Your task to perform on an android device: Add "jbl flip 4" to the cart on target.com Image 0: 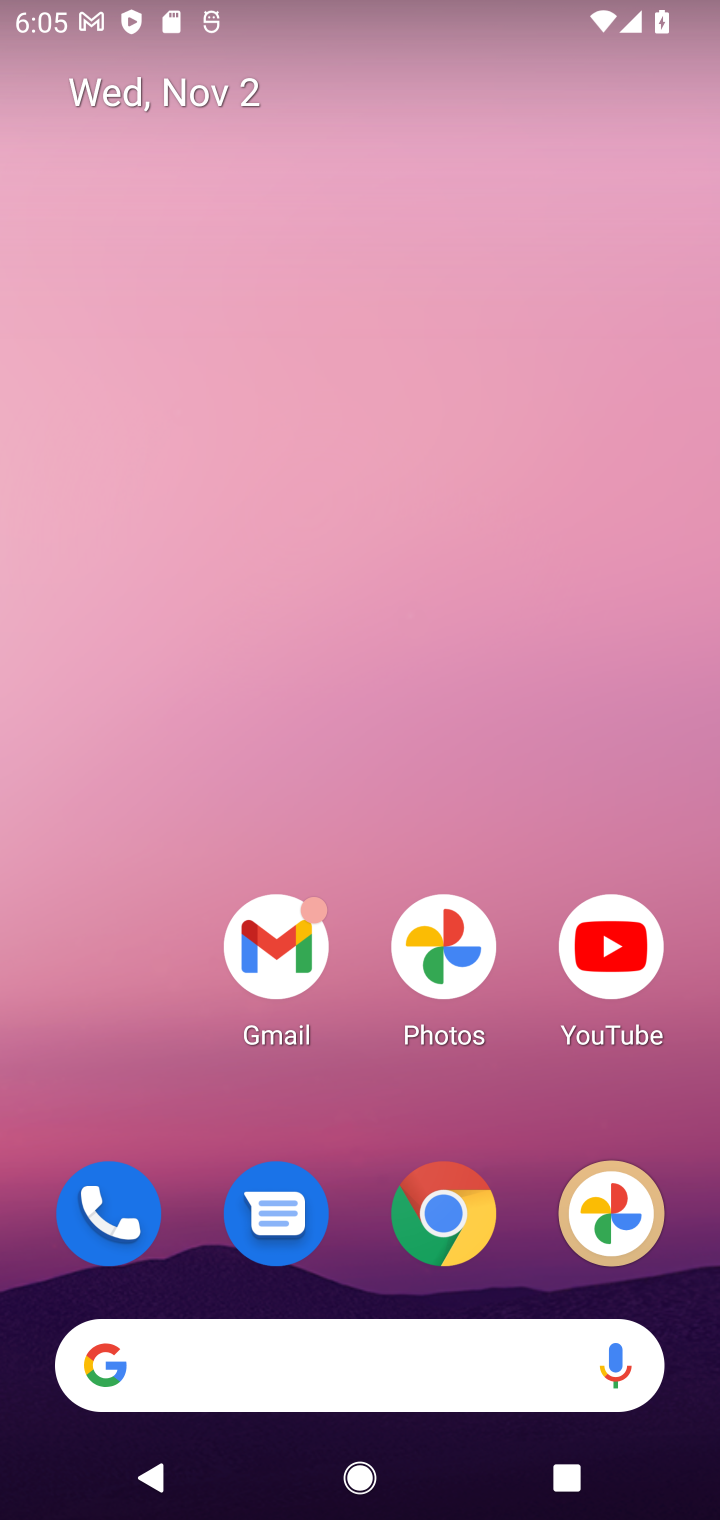
Step 0: click (449, 1214)
Your task to perform on an android device: Add "jbl flip 4" to the cart on target.com Image 1: 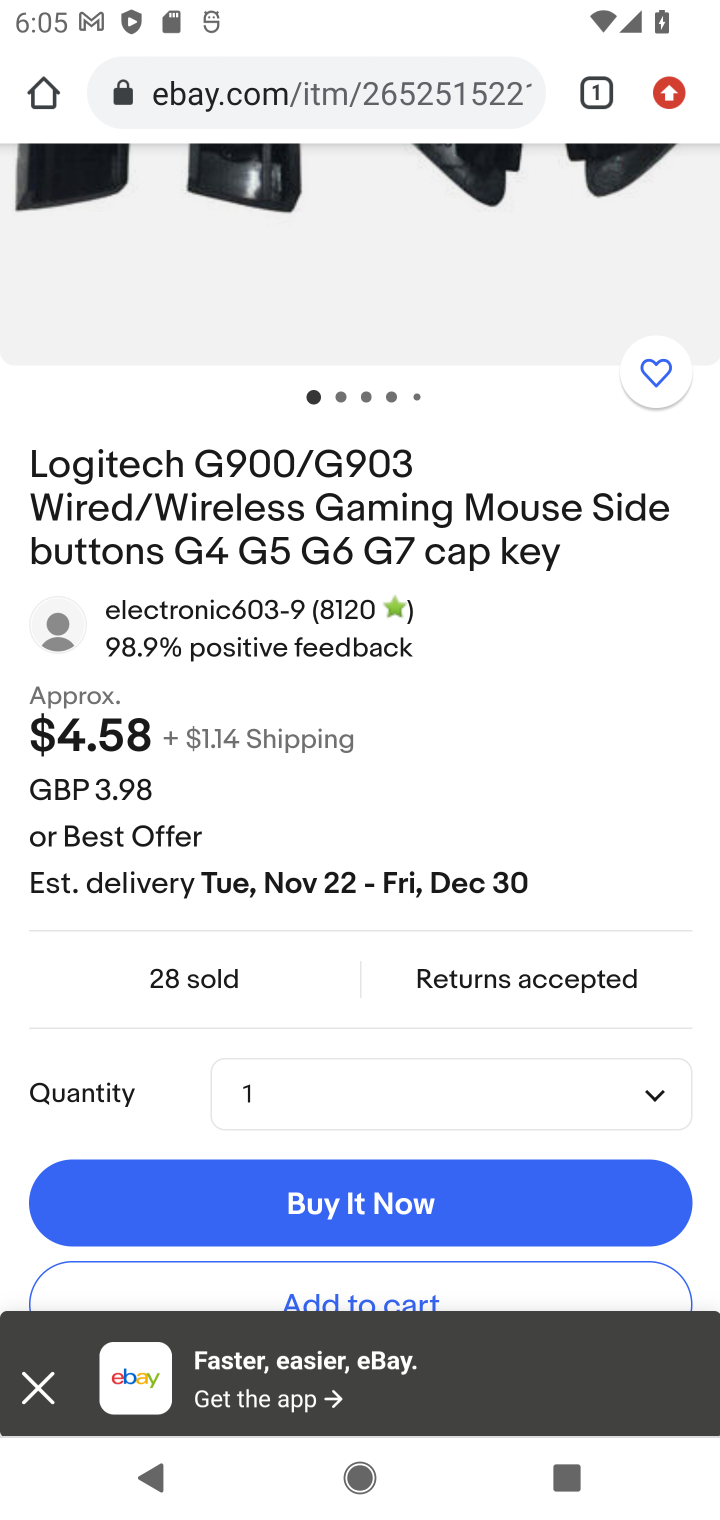
Step 1: click (353, 58)
Your task to perform on an android device: Add "jbl flip 4" to the cart on target.com Image 2: 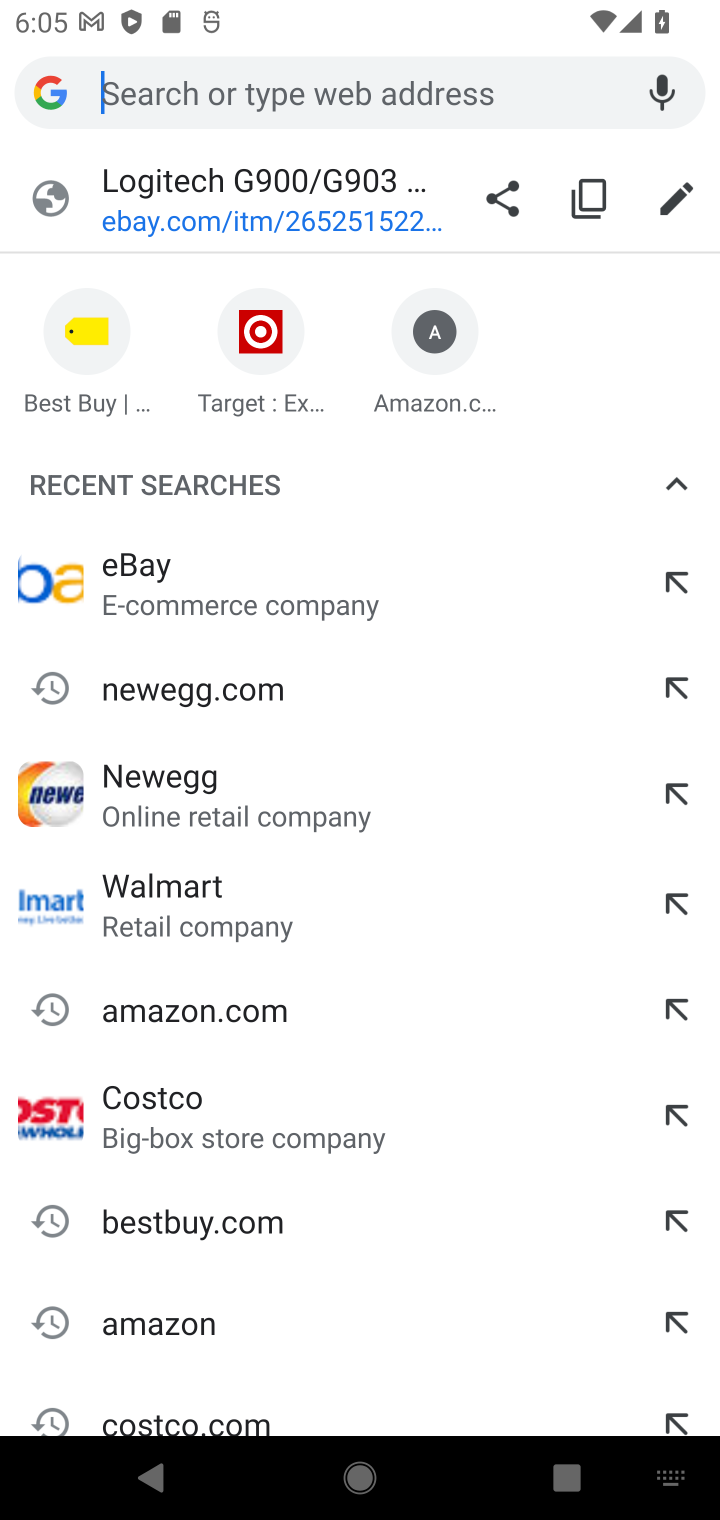
Step 2: click (254, 329)
Your task to perform on an android device: Add "jbl flip 4" to the cart on target.com Image 3: 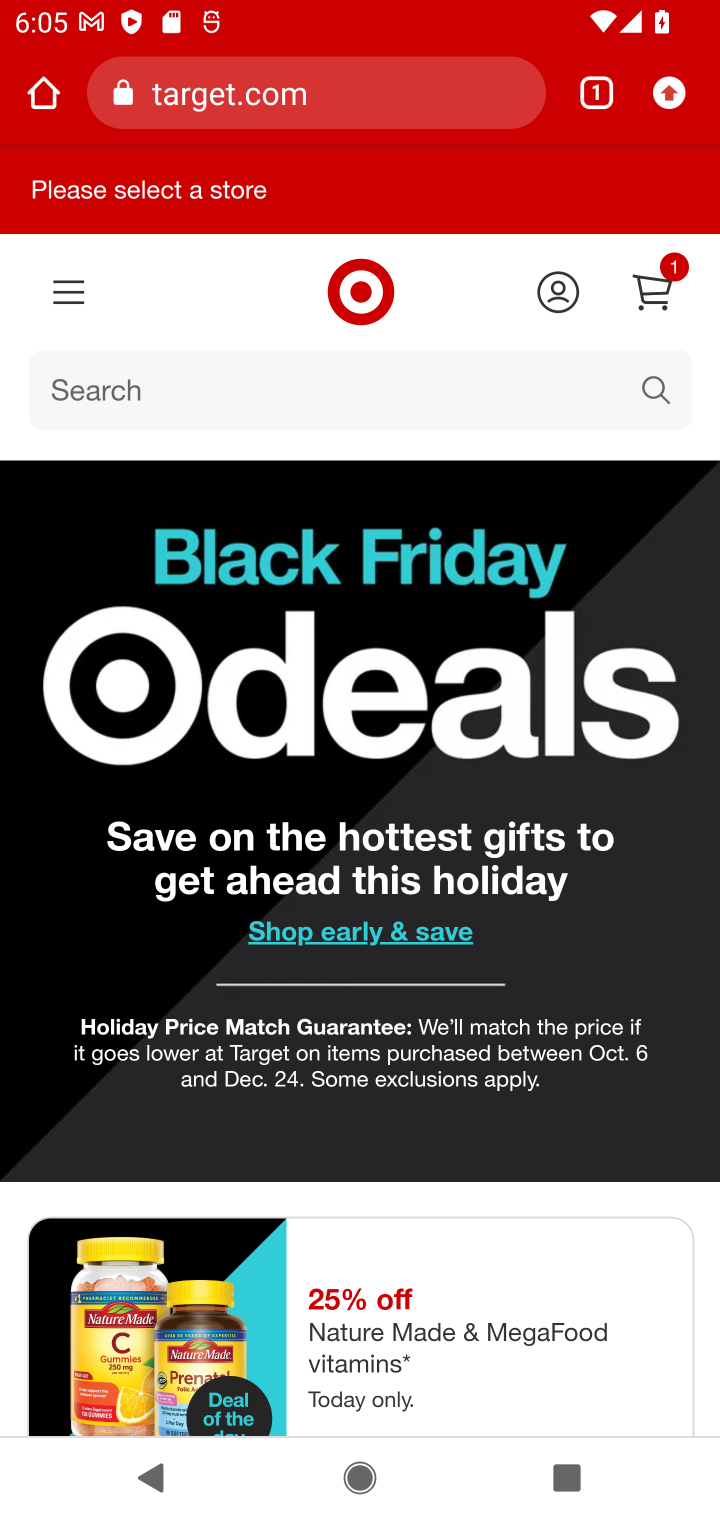
Step 3: click (142, 387)
Your task to perform on an android device: Add "jbl flip 4" to the cart on target.com Image 4: 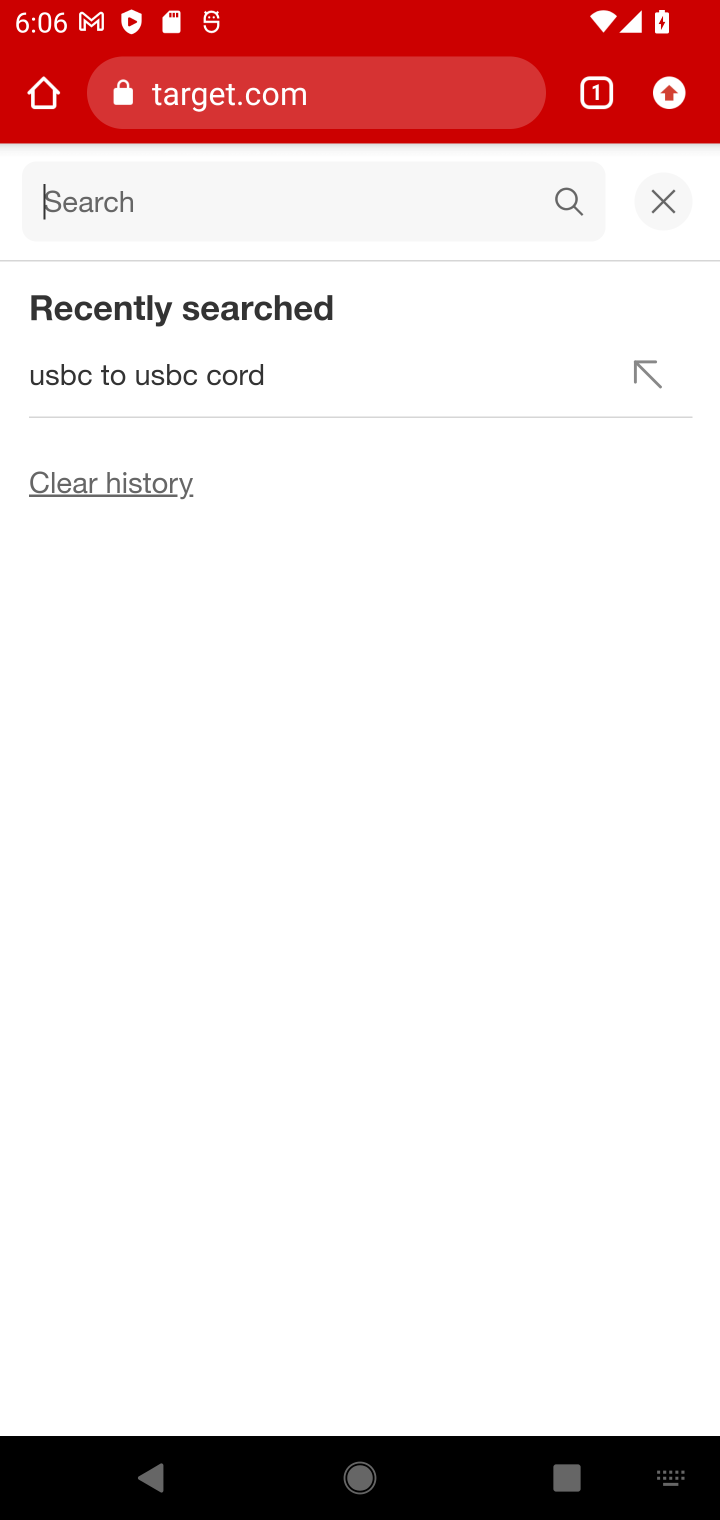
Step 4: type "jbl flip 4"
Your task to perform on an android device: Add "jbl flip 4" to the cart on target.com Image 5: 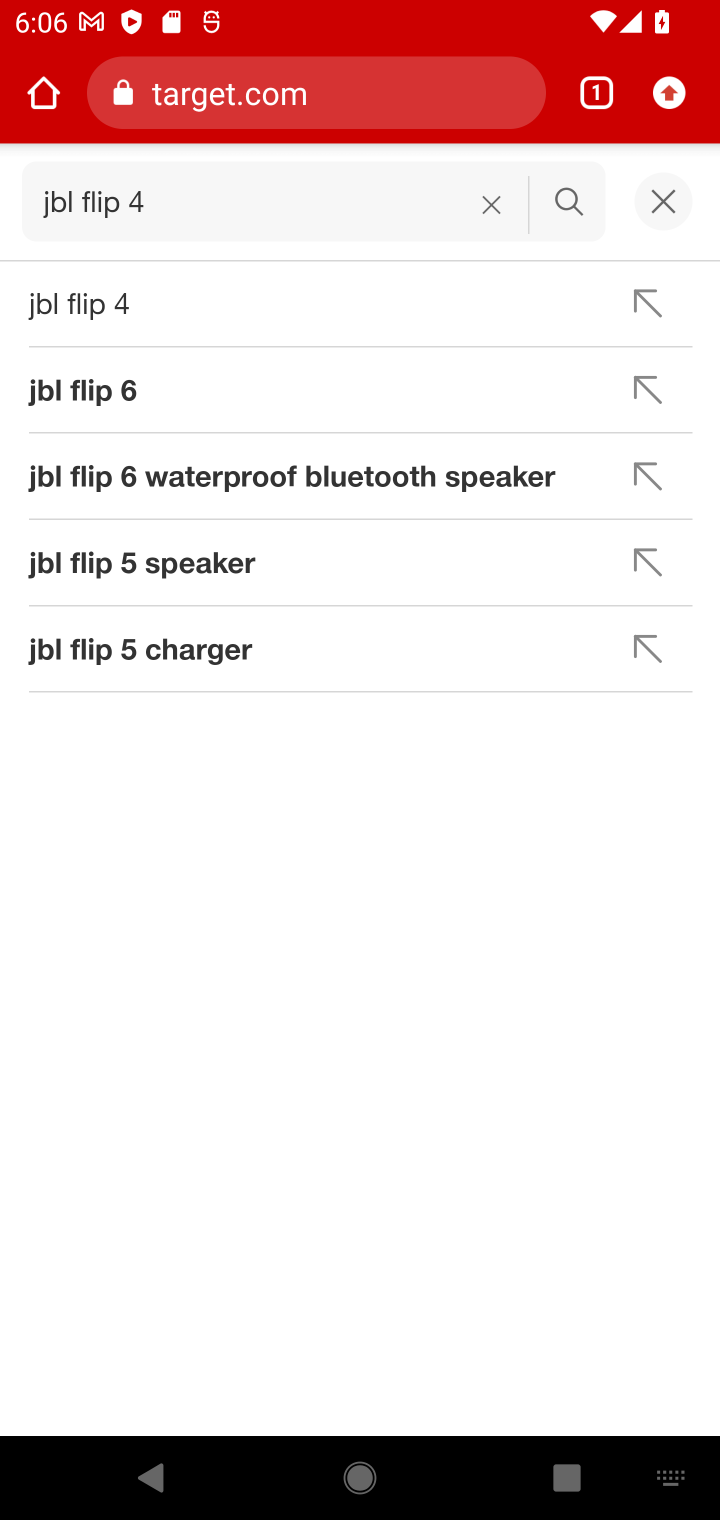
Step 5: click (60, 291)
Your task to perform on an android device: Add "jbl flip 4" to the cart on target.com Image 6: 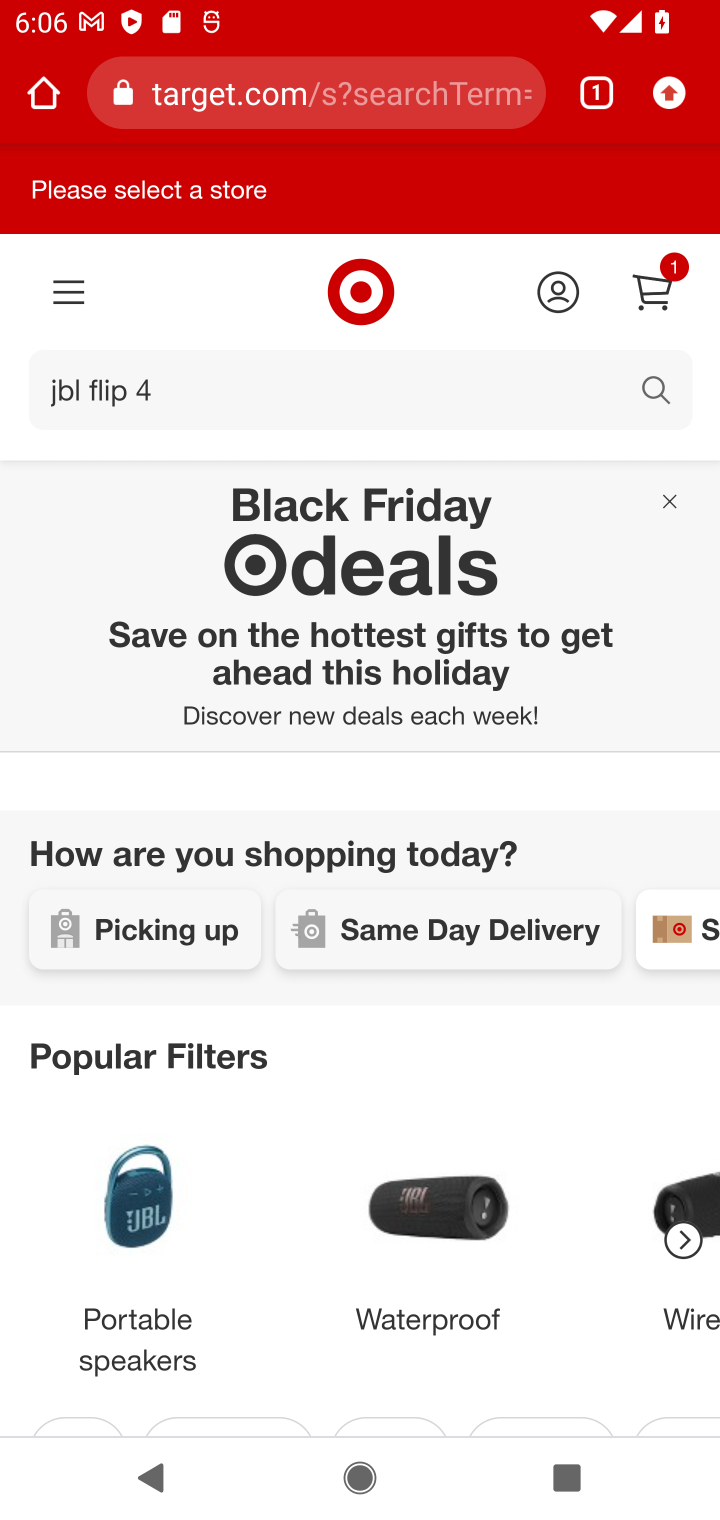
Step 6: task complete